Your task to perform on an android device: toggle data saver in the chrome app Image 0: 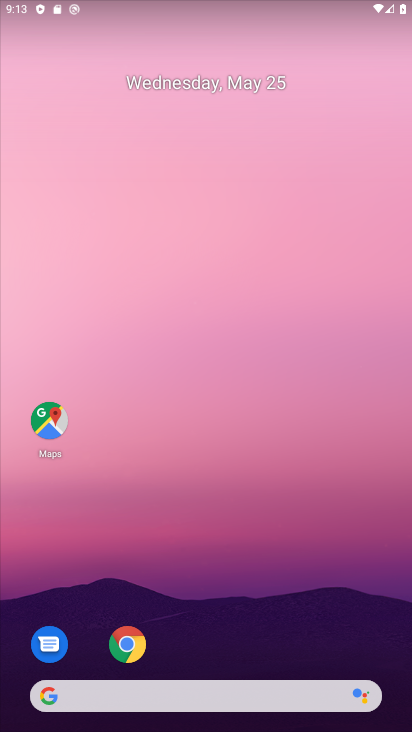
Step 0: click (125, 650)
Your task to perform on an android device: toggle data saver in the chrome app Image 1: 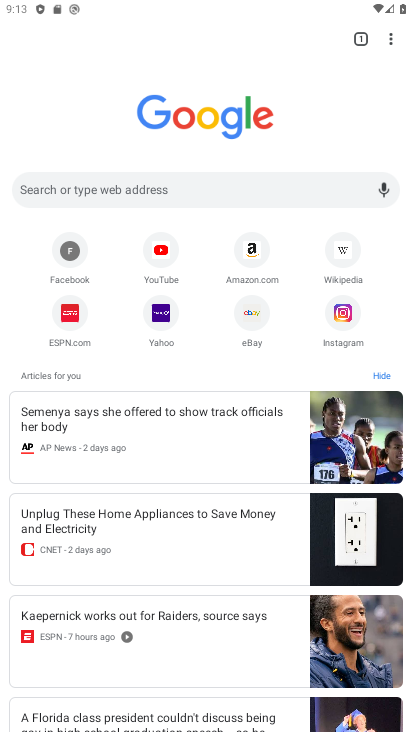
Step 1: click (394, 41)
Your task to perform on an android device: toggle data saver in the chrome app Image 2: 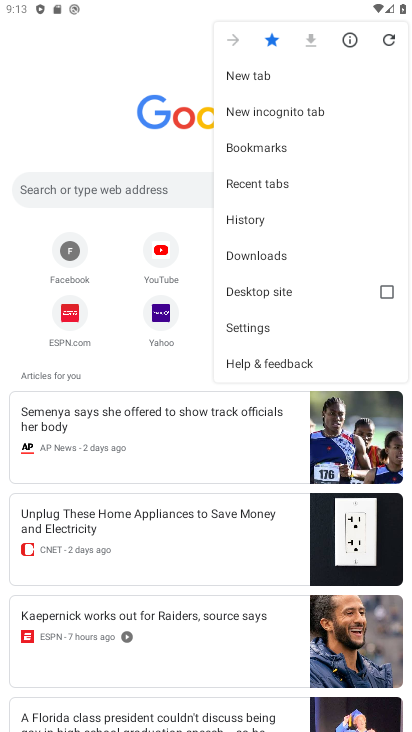
Step 2: click (260, 329)
Your task to perform on an android device: toggle data saver in the chrome app Image 3: 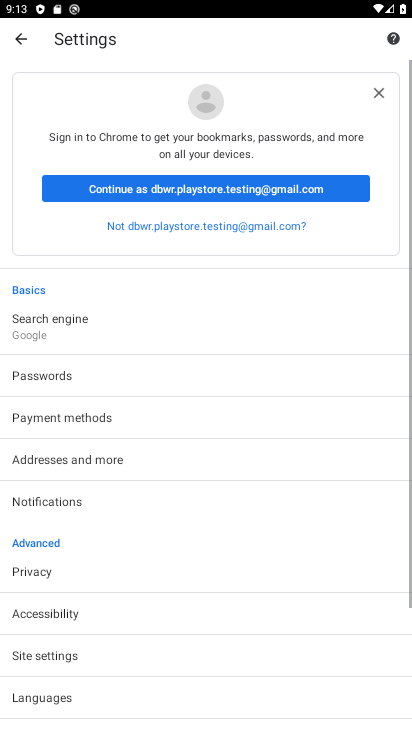
Step 3: drag from (91, 568) to (125, 249)
Your task to perform on an android device: toggle data saver in the chrome app Image 4: 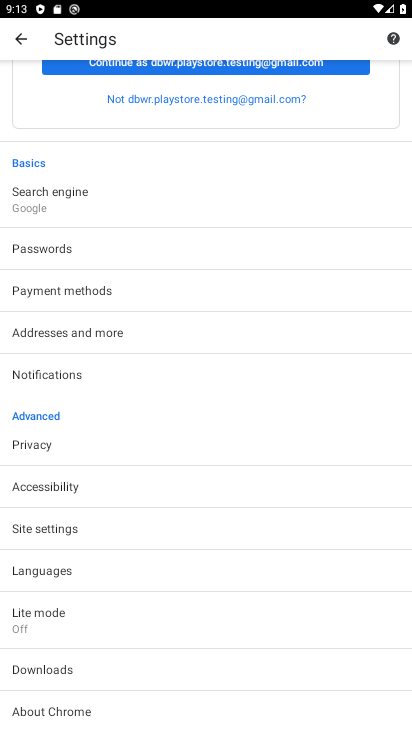
Step 4: click (29, 617)
Your task to perform on an android device: toggle data saver in the chrome app Image 5: 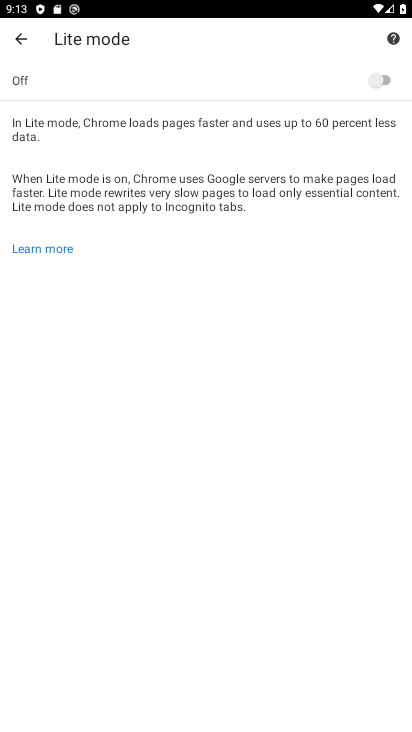
Step 5: click (378, 81)
Your task to perform on an android device: toggle data saver in the chrome app Image 6: 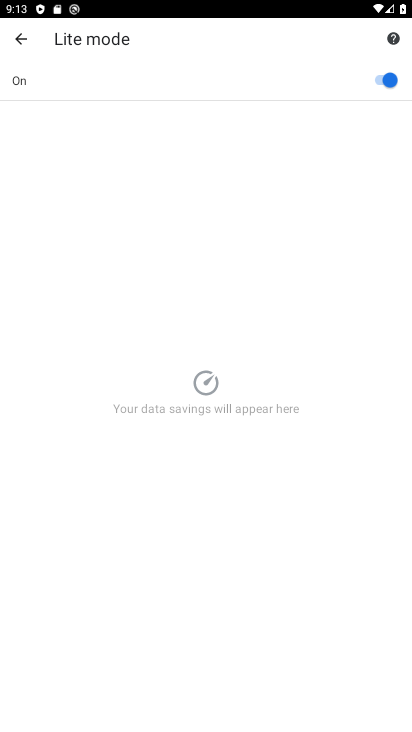
Step 6: task complete